Your task to perform on an android device: Check the weather Image 0: 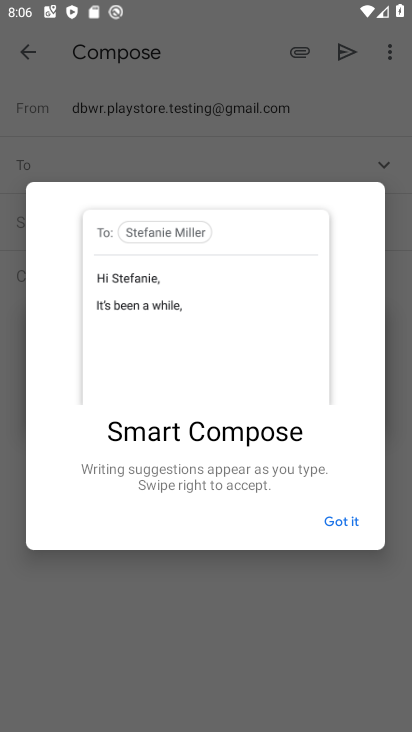
Step 0: press home button
Your task to perform on an android device: Check the weather Image 1: 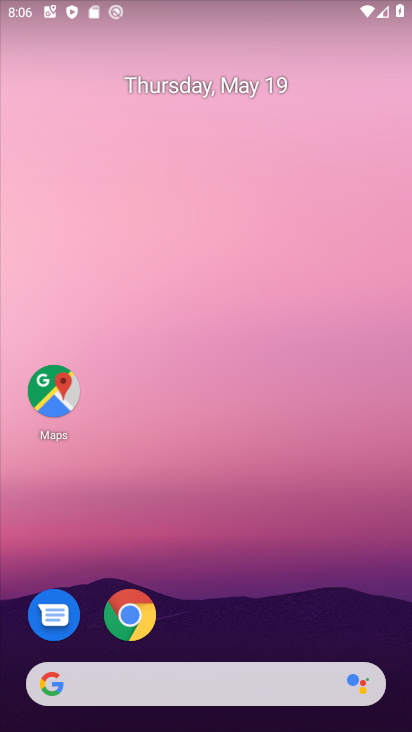
Step 1: drag from (227, 602) to (231, 135)
Your task to perform on an android device: Check the weather Image 2: 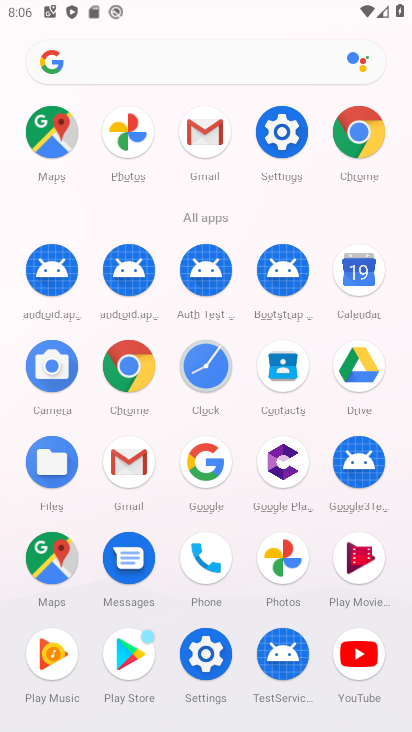
Step 2: click (208, 462)
Your task to perform on an android device: Check the weather Image 3: 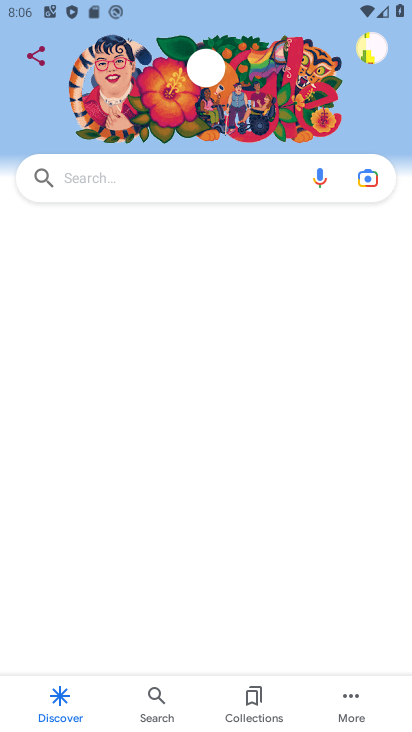
Step 3: click (109, 171)
Your task to perform on an android device: Check the weather Image 4: 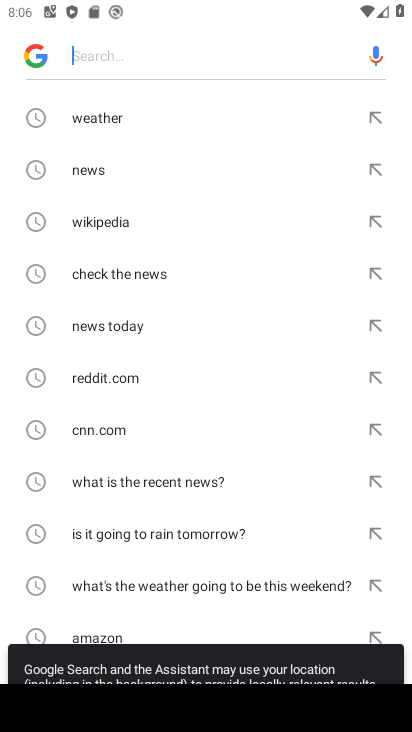
Step 4: click (116, 126)
Your task to perform on an android device: Check the weather Image 5: 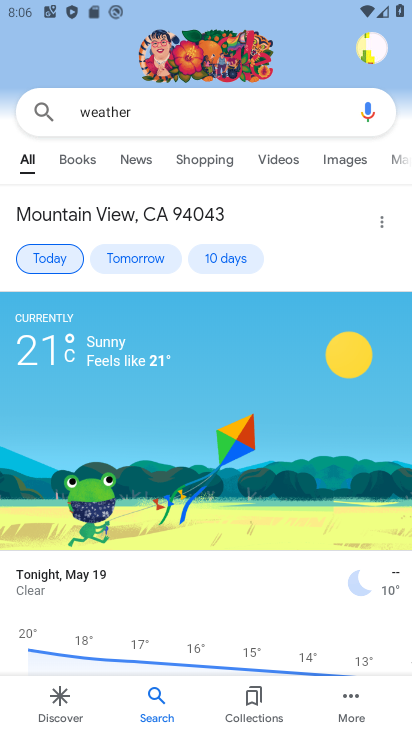
Step 5: task complete